Your task to perform on an android device: add a contact Image 0: 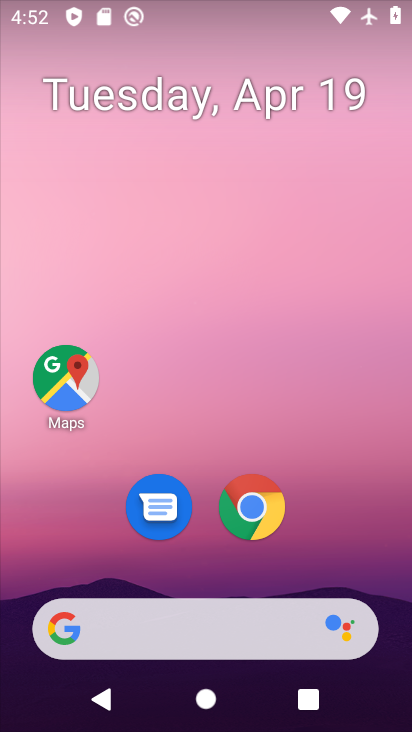
Step 0: drag from (358, 534) to (346, 127)
Your task to perform on an android device: add a contact Image 1: 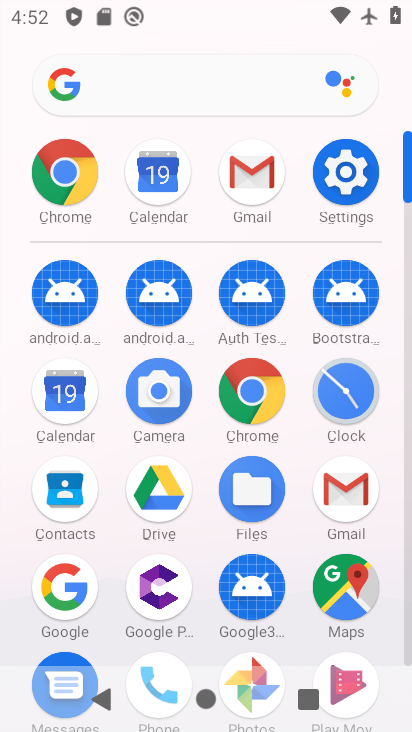
Step 1: click (44, 495)
Your task to perform on an android device: add a contact Image 2: 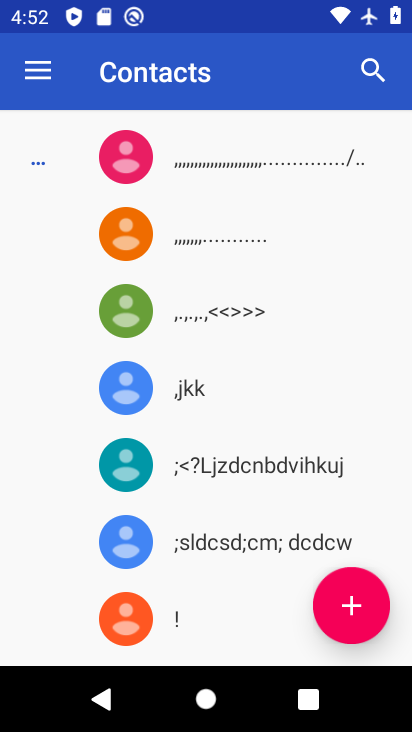
Step 2: click (372, 616)
Your task to perform on an android device: add a contact Image 3: 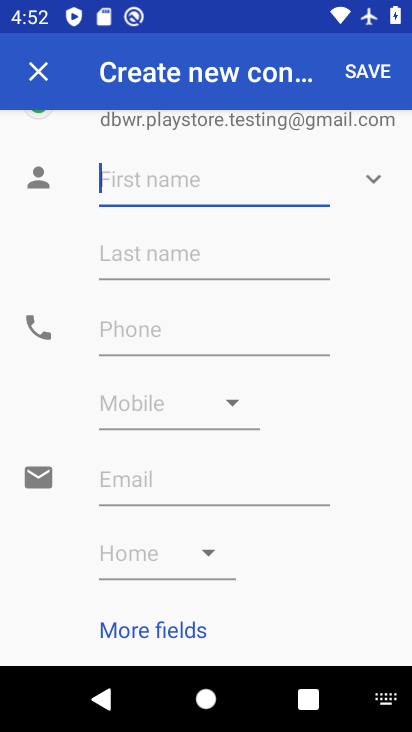
Step 3: click (242, 185)
Your task to perform on an android device: add a contact Image 4: 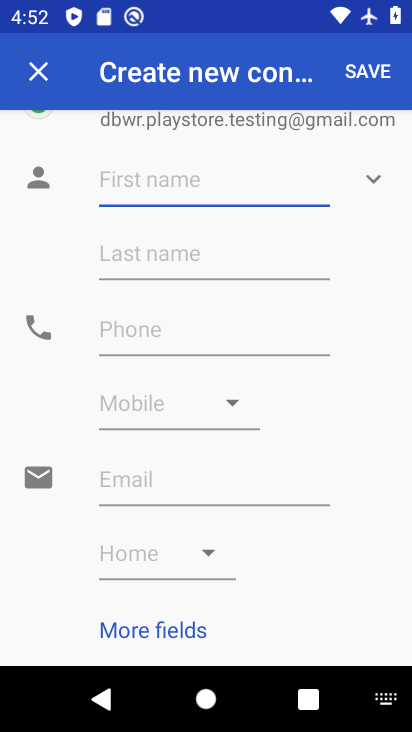
Step 4: type "ghoga"
Your task to perform on an android device: add a contact Image 5: 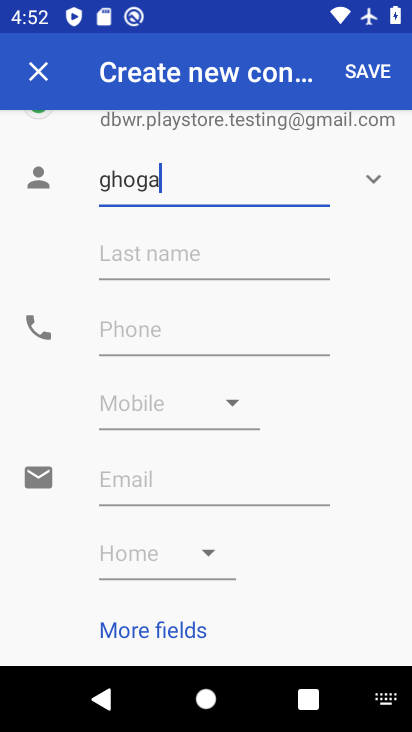
Step 5: type ""
Your task to perform on an android device: add a contact Image 6: 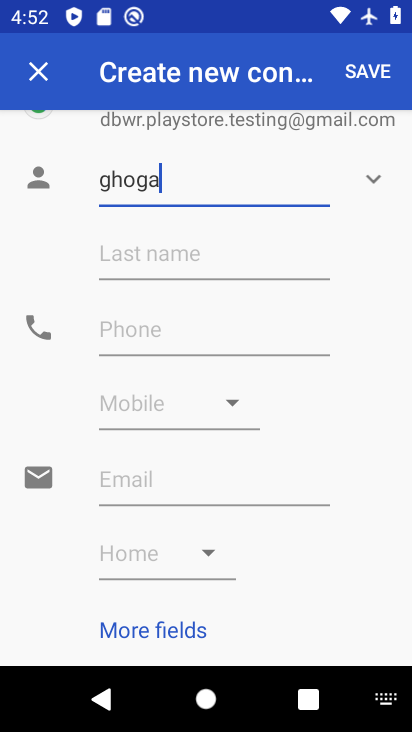
Step 6: click (365, 76)
Your task to perform on an android device: add a contact Image 7: 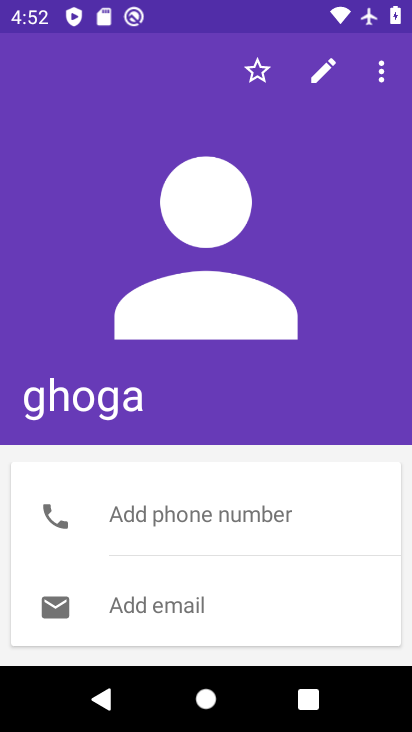
Step 7: task complete